Your task to perform on an android device: Open Chrome and go to settings Image 0: 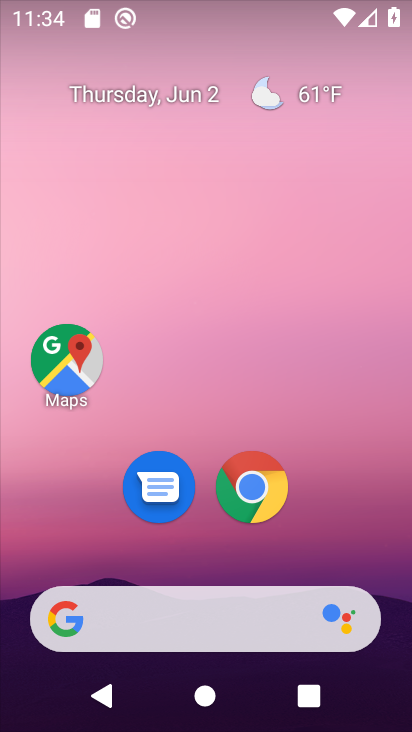
Step 0: click (256, 486)
Your task to perform on an android device: Open Chrome and go to settings Image 1: 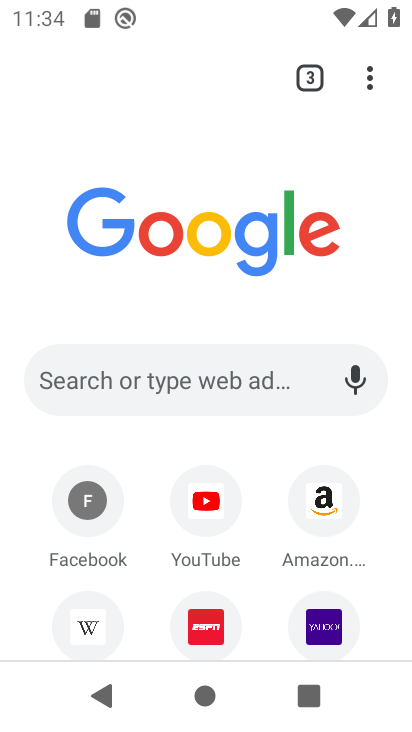
Step 1: click (371, 77)
Your task to perform on an android device: Open Chrome and go to settings Image 2: 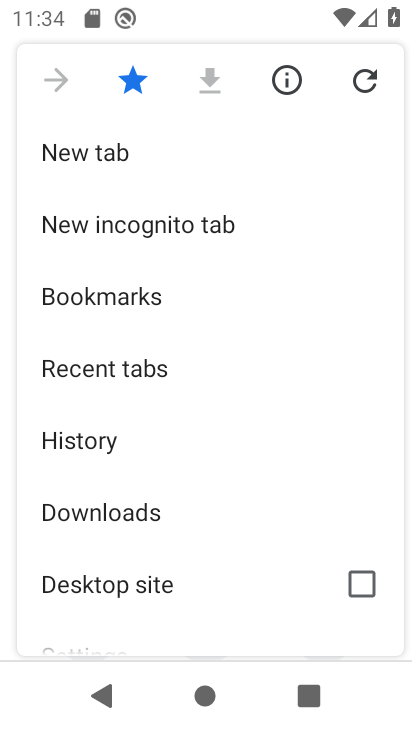
Step 2: drag from (126, 412) to (175, 333)
Your task to perform on an android device: Open Chrome and go to settings Image 3: 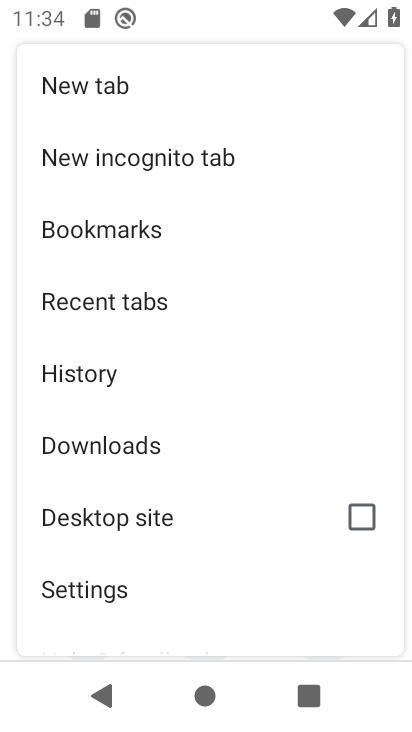
Step 3: drag from (101, 483) to (180, 364)
Your task to perform on an android device: Open Chrome and go to settings Image 4: 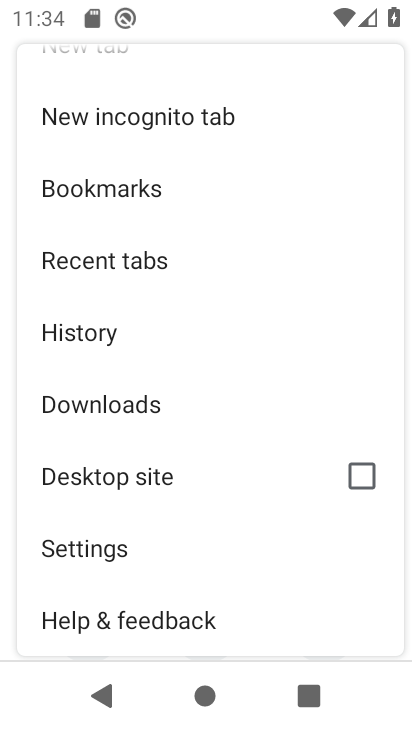
Step 4: click (97, 541)
Your task to perform on an android device: Open Chrome and go to settings Image 5: 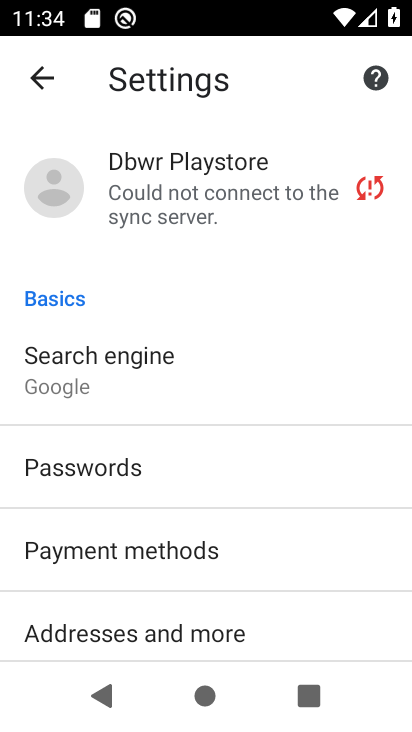
Step 5: task complete